Your task to perform on an android device: turn on javascript in the chrome app Image 0: 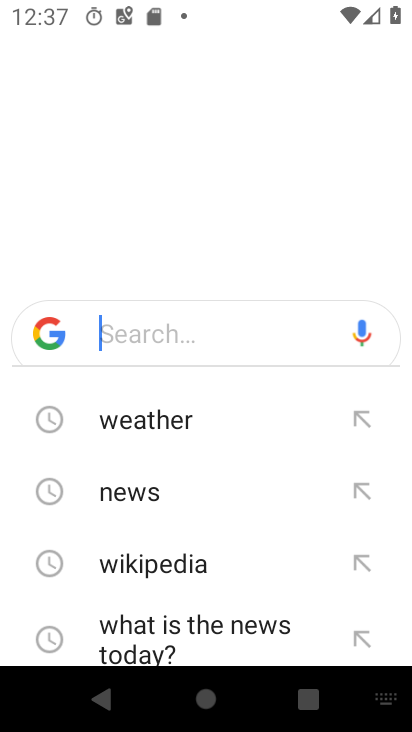
Step 0: press back button
Your task to perform on an android device: turn on javascript in the chrome app Image 1: 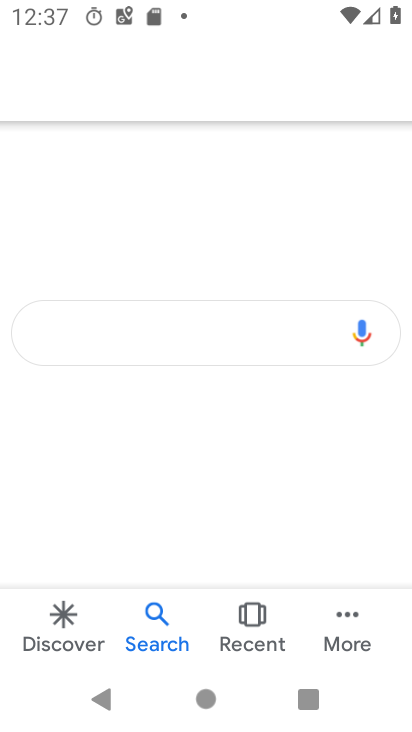
Step 1: press home button
Your task to perform on an android device: turn on javascript in the chrome app Image 2: 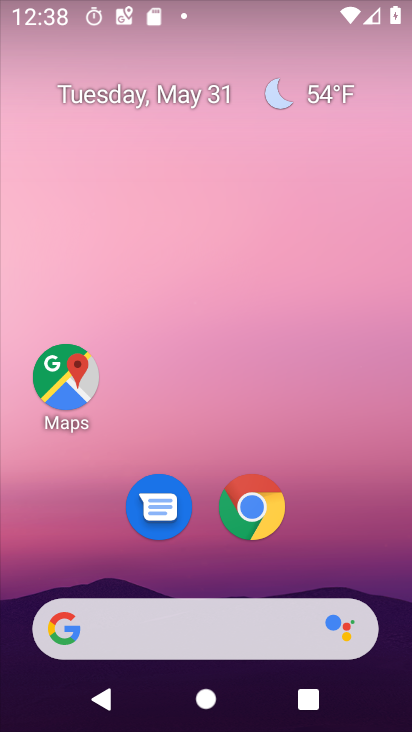
Step 2: drag from (270, 694) to (276, 179)
Your task to perform on an android device: turn on javascript in the chrome app Image 3: 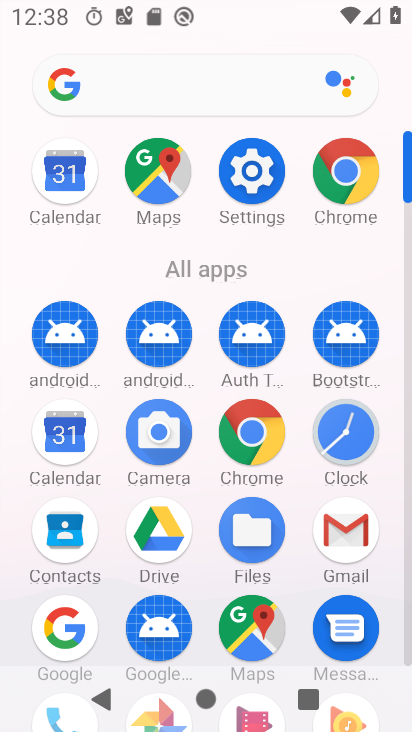
Step 3: drag from (339, 176) to (402, 205)
Your task to perform on an android device: turn on javascript in the chrome app Image 4: 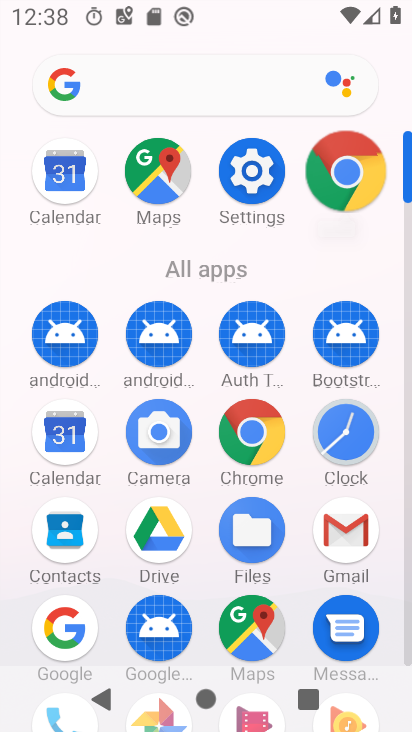
Step 4: click (398, 199)
Your task to perform on an android device: turn on javascript in the chrome app Image 5: 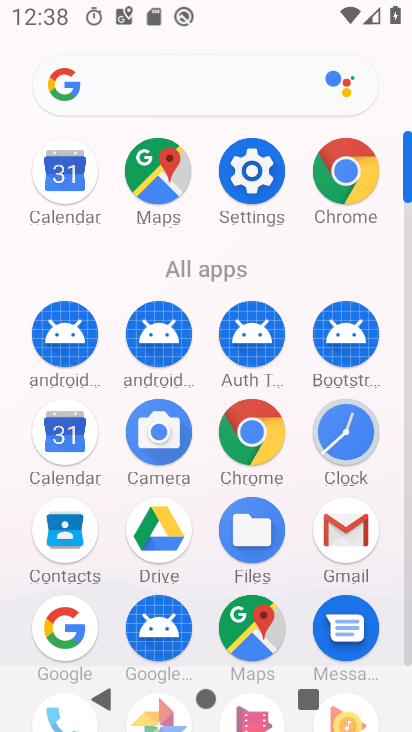
Step 5: click (343, 154)
Your task to perform on an android device: turn on javascript in the chrome app Image 6: 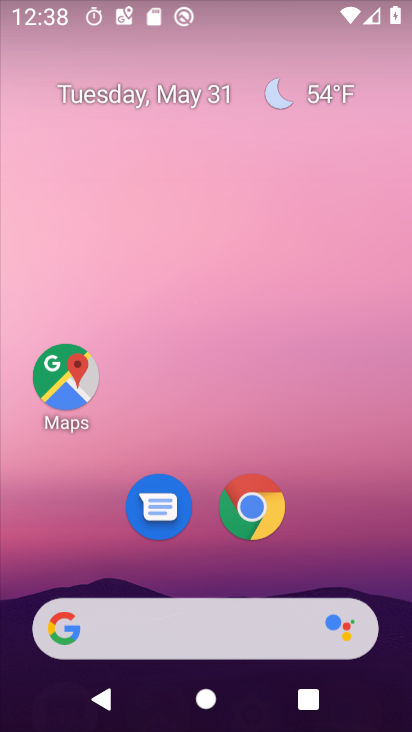
Step 6: click (332, 153)
Your task to perform on an android device: turn on javascript in the chrome app Image 7: 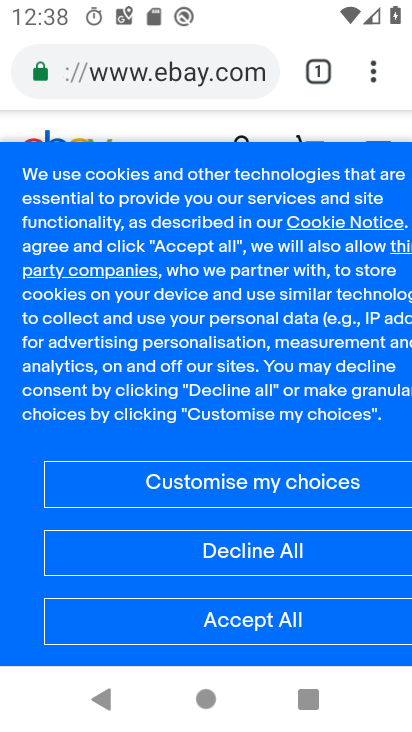
Step 7: drag from (370, 74) to (145, 595)
Your task to perform on an android device: turn on javascript in the chrome app Image 8: 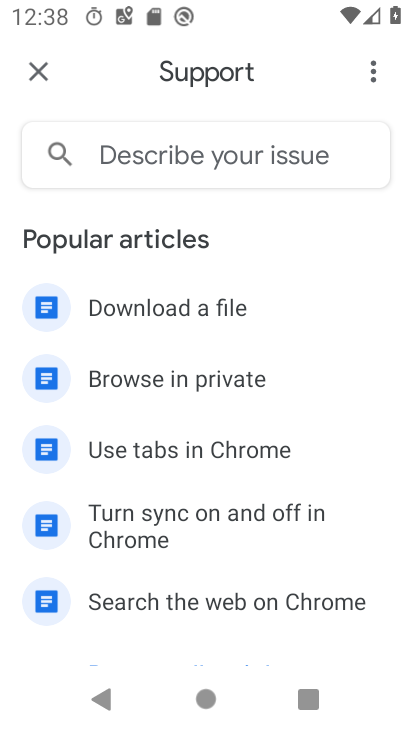
Step 8: click (38, 69)
Your task to perform on an android device: turn on javascript in the chrome app Image 9: 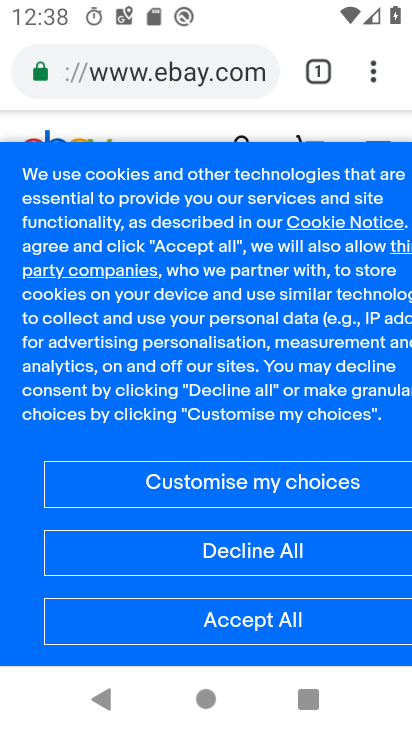
Step 9: drag from (374, 80) to (117, 503)
Your task to perform on an android device: turn on javascript in the chrome app Image 10: 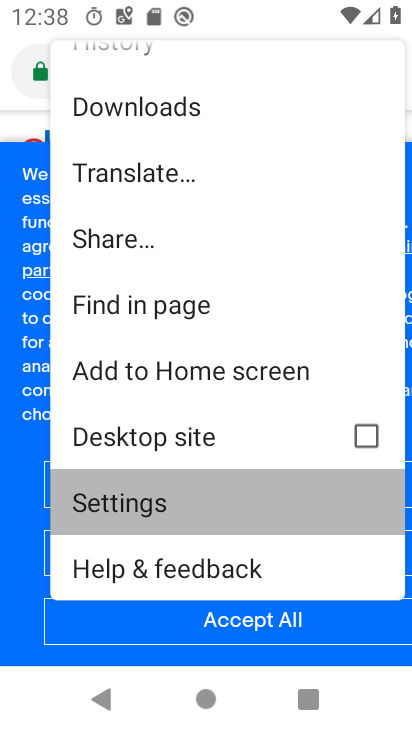
Step 10: click (119, 513)
Your task to perform on an android device: turn on javascript in the chrome app Image 11: 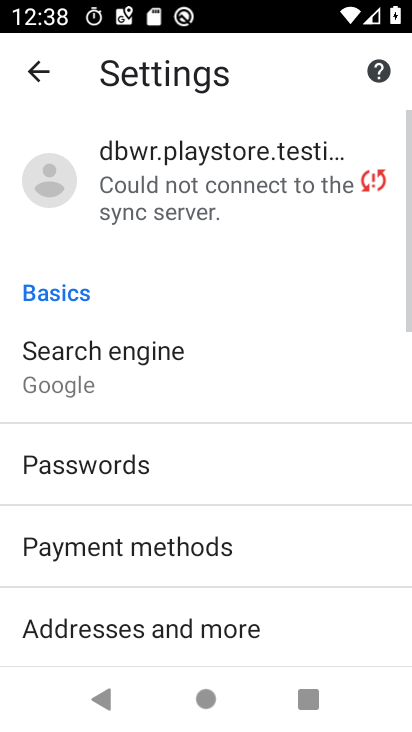
Step 11: drag from (129, 562) to (110, 152)
Your task to perform on an android device: turn on javascript in the chrome app Image 12: 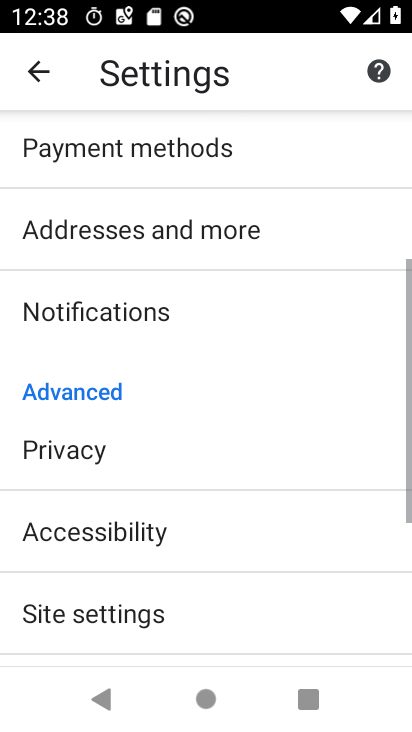
Step 12: drag from (156, 482) to (173, 85)
Your task to perform on an android device: turn on javascript in the chrome app Image 13: 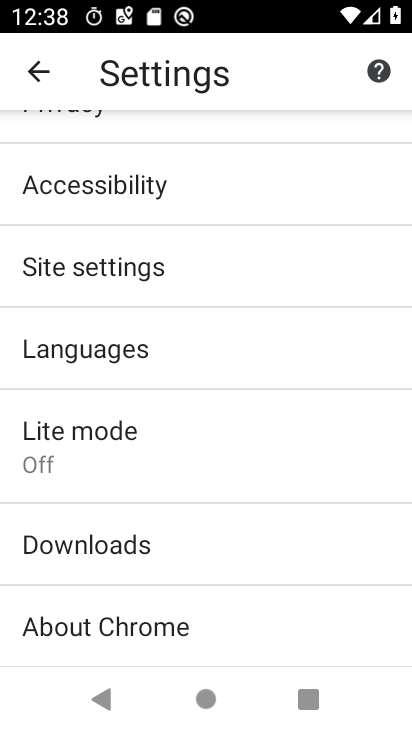
Step 13: click (79, 270)
Your task to perform on an android device: turn on javascript in the chrome app Image 14: 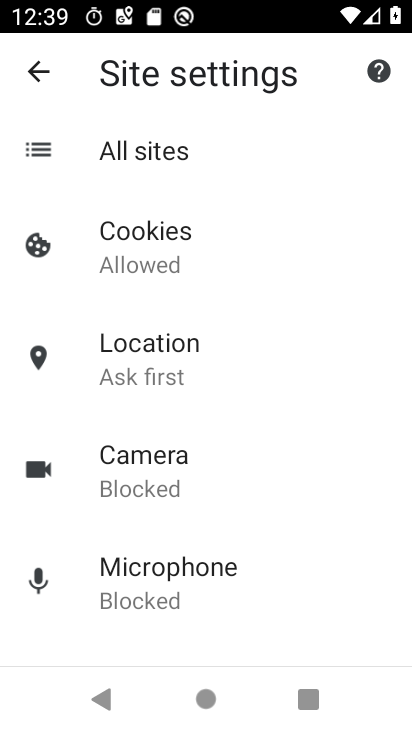
Step 14: drag from (144, 530) to (133, 259)
Your task to perform on an android device: turn on javascript in the chrome app Image 15: 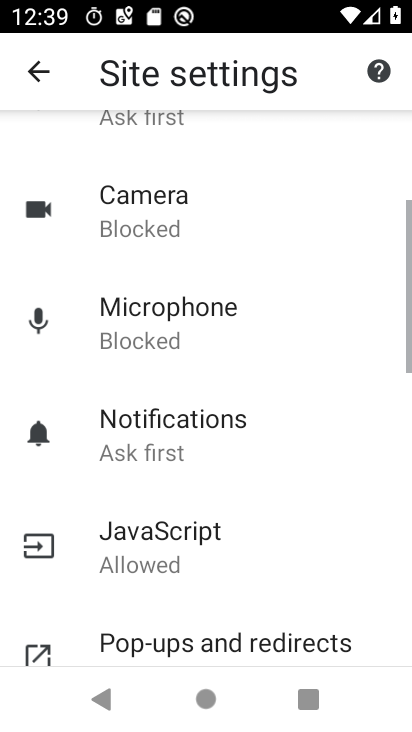
Step 15: drag from (139, 465) to (106, 254)
Your task to perform on an android device: turn on javascript in the chrome app Image 16: 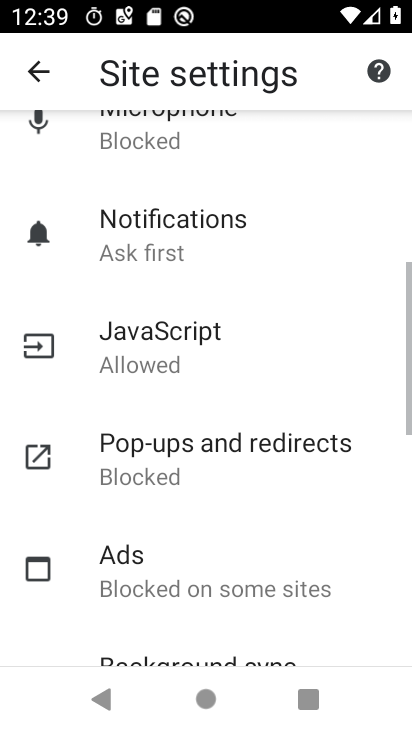
Step 16: click (151, 333)
Your task to perform on an android device: turn on javascript in the chrome app Image 17: 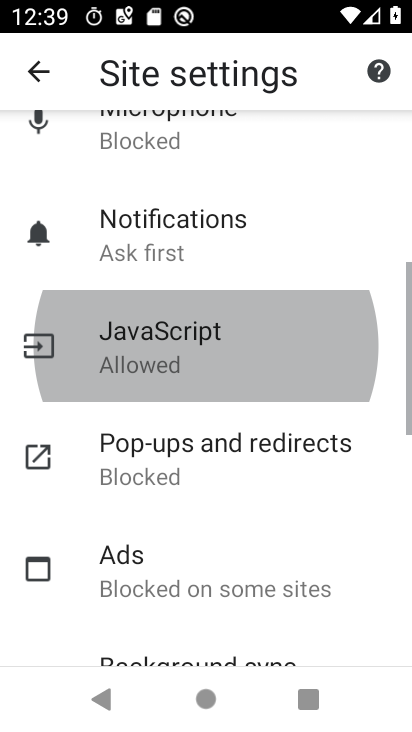
Step 17: click (150, 334)
Your task to perform on an android device: turn on javascript in the chrome app Image 18: 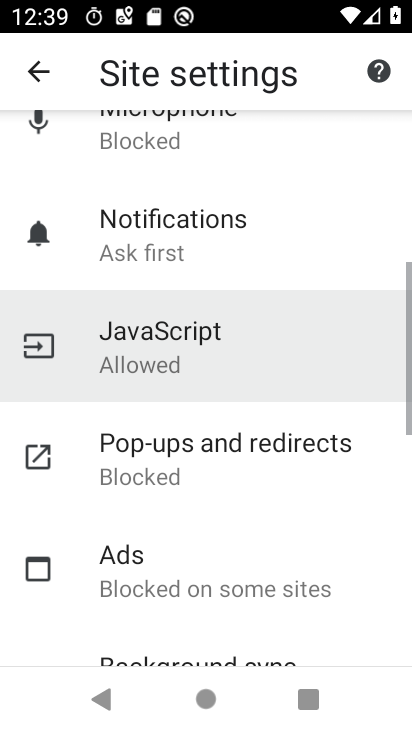
Step 18: click (150, 342)
Your task to perform on an android device: turn on javascript in the chrome app Image 19: 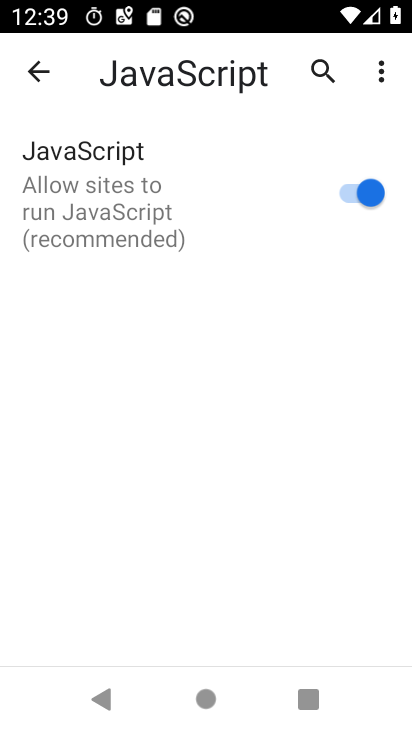
Step 19: click (137, 333)
Your task to perform on an android device: turn on javascript in the chrome app Image 20: 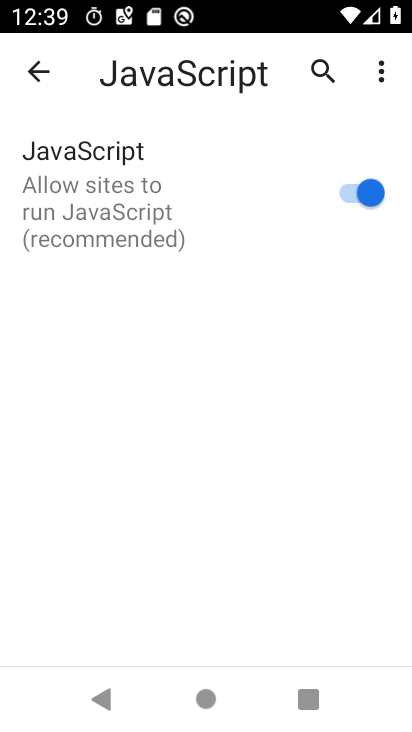
Step 20: task complete